Your task to perform on an android device: What's on the menu at Pizza Hut? Image 0: 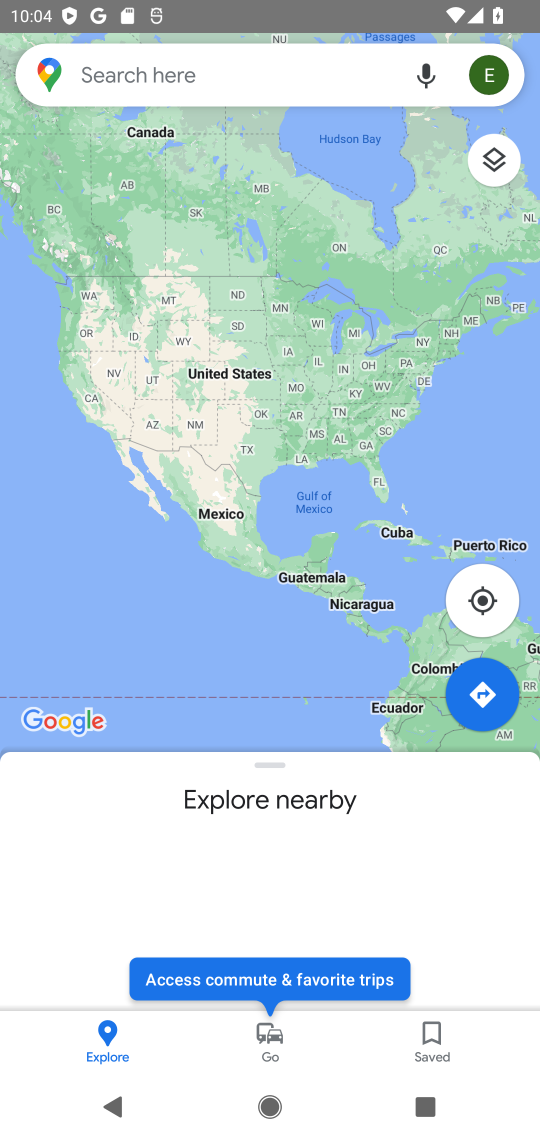
Step 0: press home button
Your task to perform on an android device: What's on the menu at Pizza Hut? Image 1: 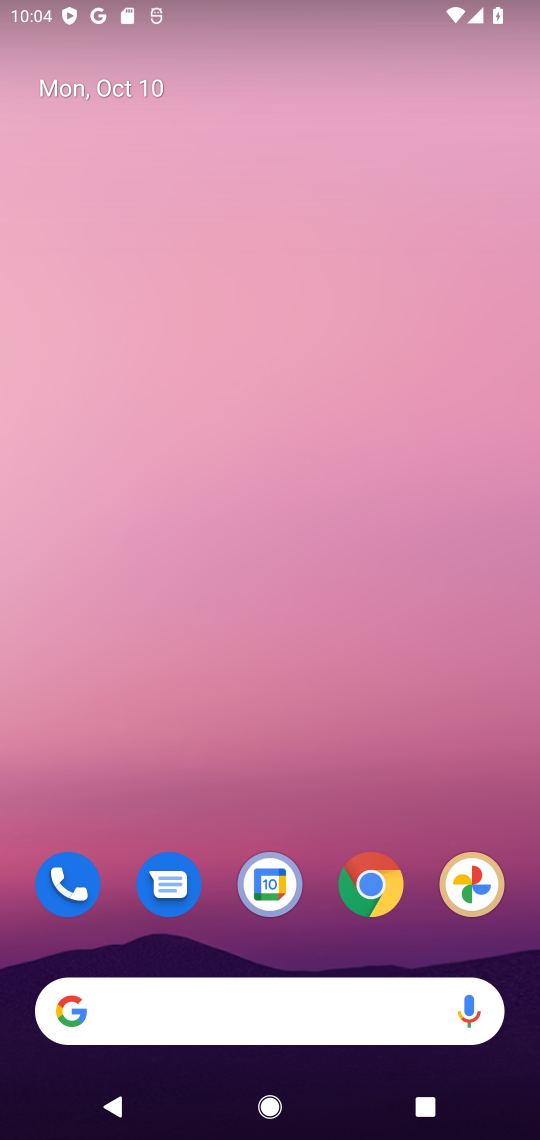
Step 1: drag from (327, 962) to (344, 133)
Your task to perform on an android device: What's on the menu at Pizza Hut? Image 2: 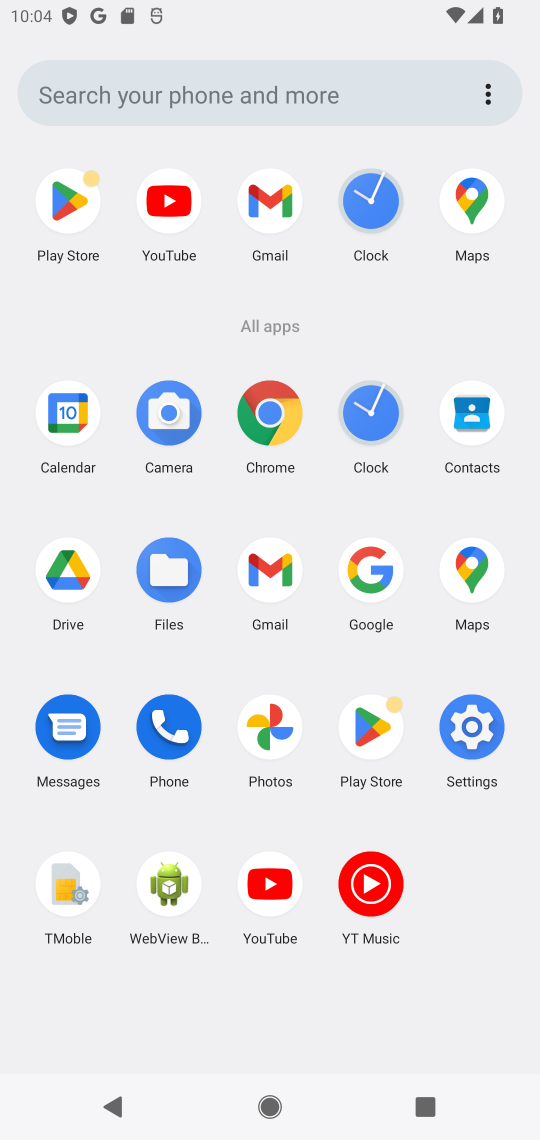
Step 2: click (377, 560)
Your task to perform on an android device: What's on the menu at Pizza Hut? Image 3: 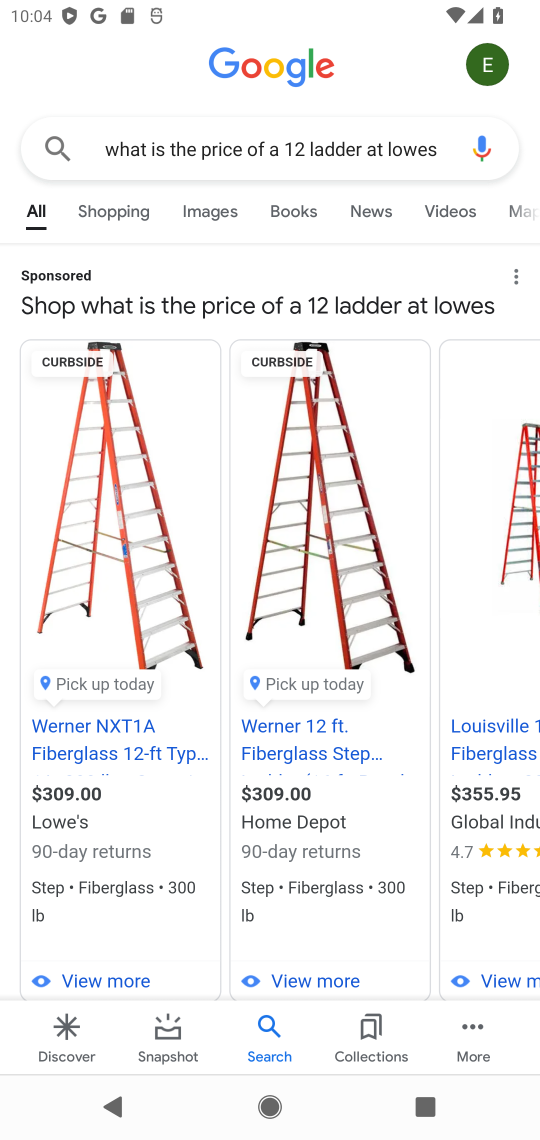
Step 3: click (344, 154)
Your task to perform on an android device: What's on the menu at Pizza Hut? Image 4: 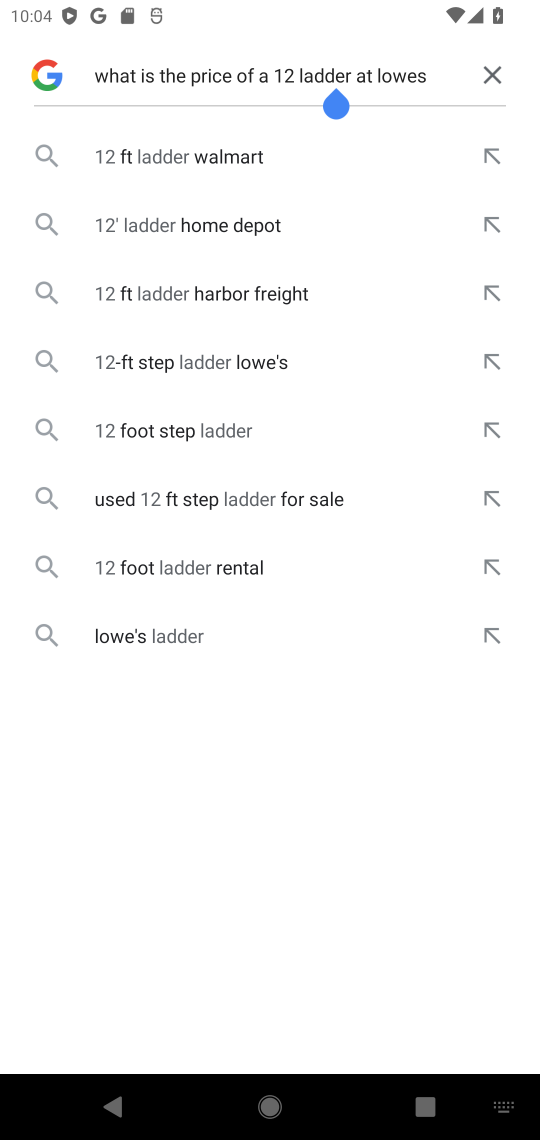
Step 4: click (484, 70)
Your task to perform on an android device: What's on the menu at Pizza Hut? Image 5: 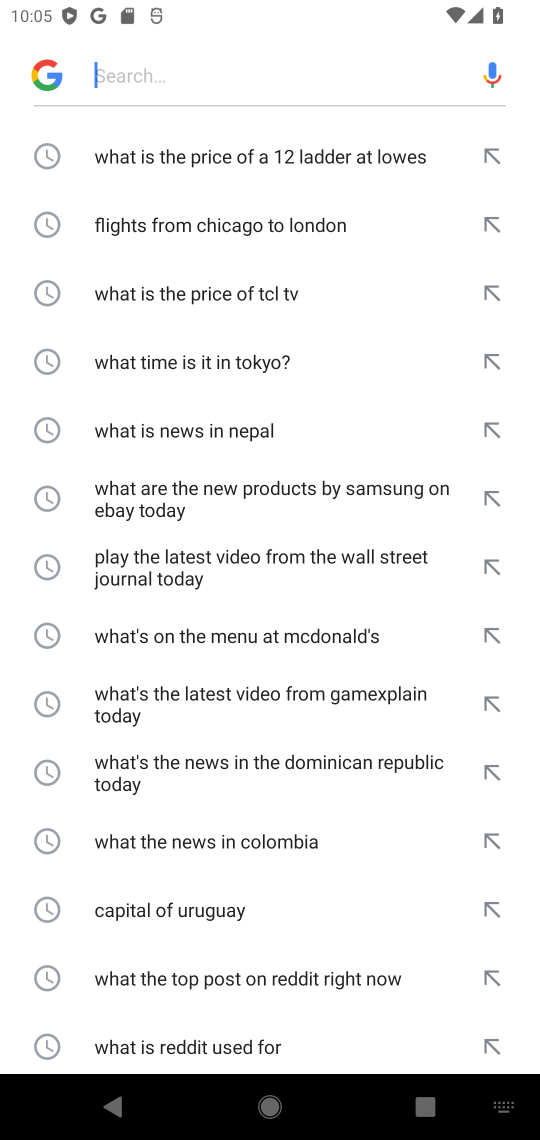
Step 5: type "Pizza Hut?"
Your task to perform on an android device: What's on the menu at Pizza Hut? Image 6: 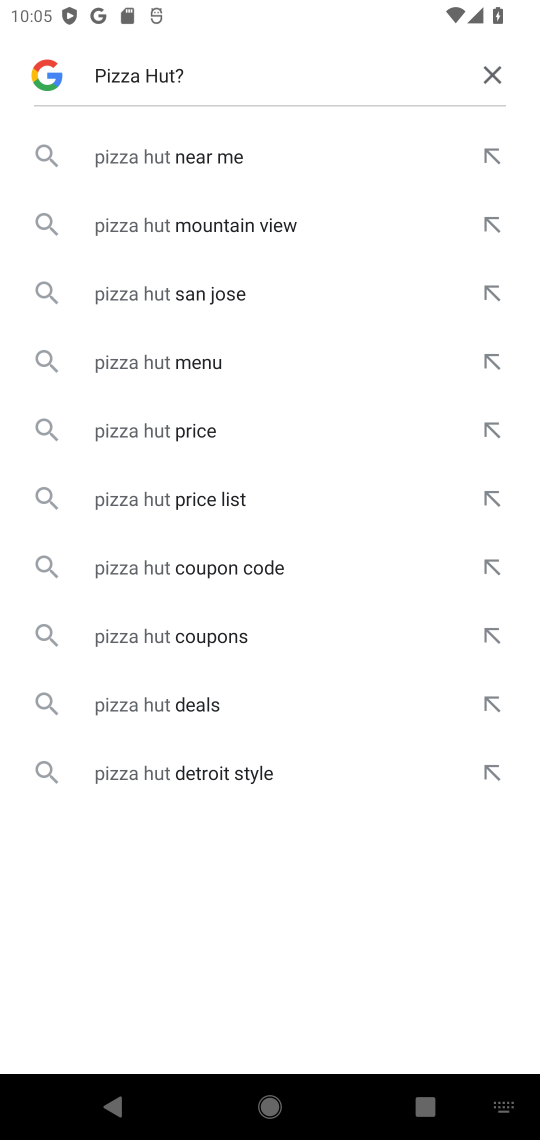
Step 6: click (185, 71)
Your task to perform on an android device: What's on the menu at Pizza Hut? Image 7: 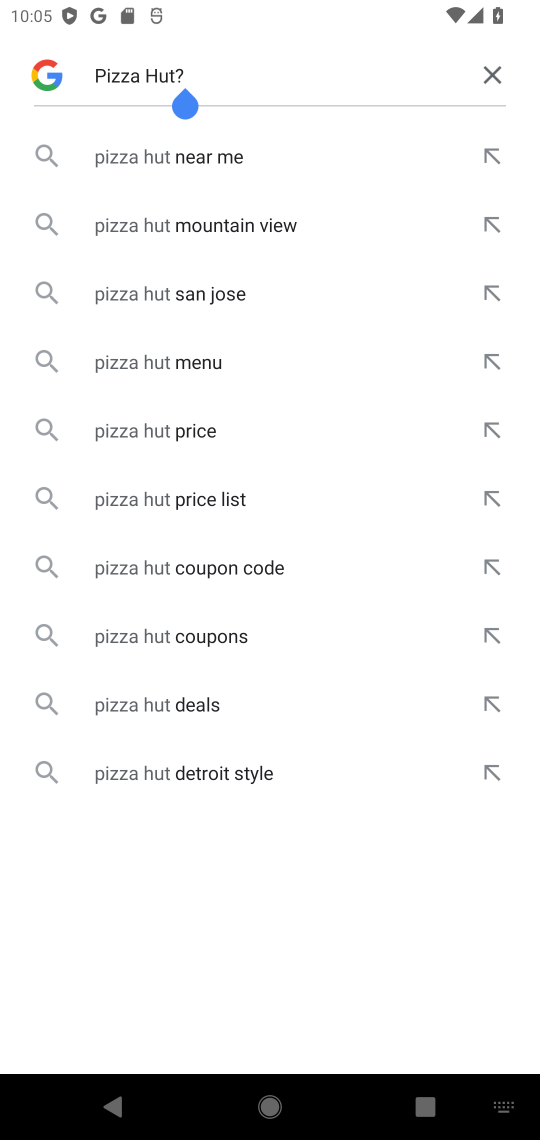
Step 7: click (474, 73)
Your task to perform on an android device: What's on the menu at Pizza Hut? Image 8: 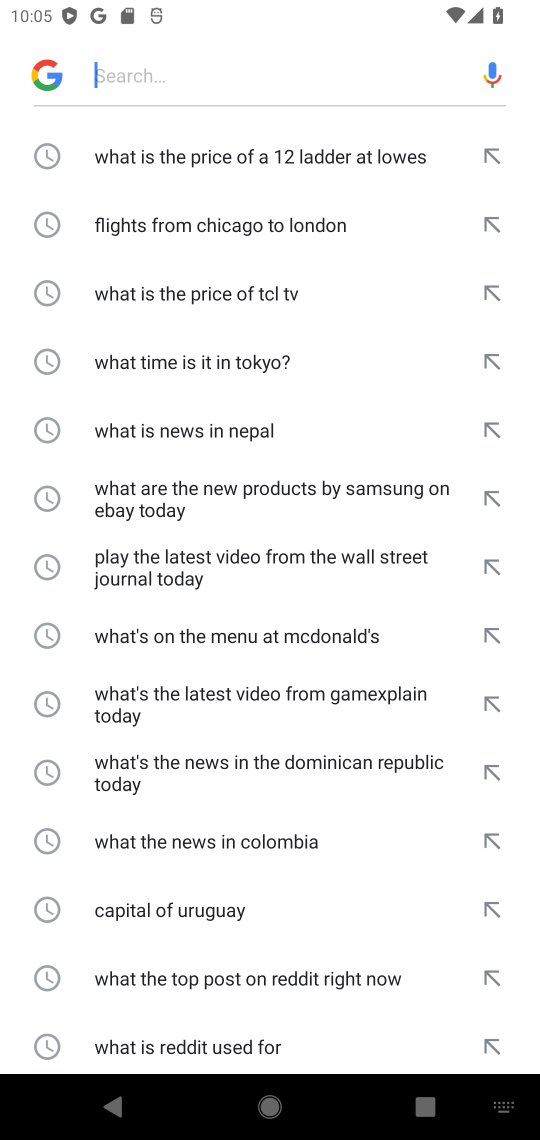
Step 8: type "menu at Pizza Hut?"
Your task to perform on an android device: What's on the menu at Pizza Hut? Image 9: 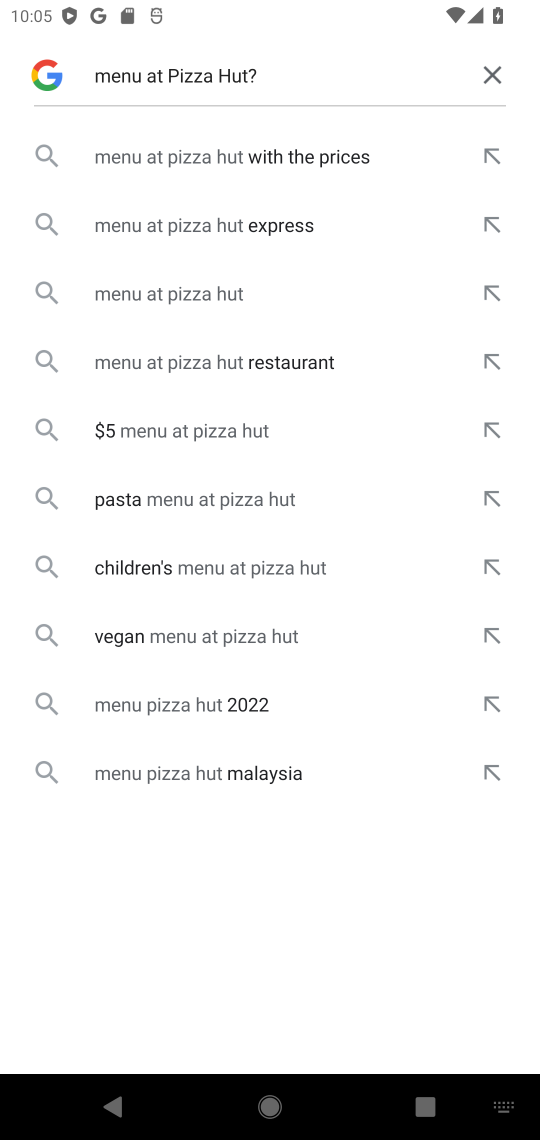
Step 9: click (244, 296)
Your task to perform on an android device: What's on the menu at Pizza Hut? Image 10: 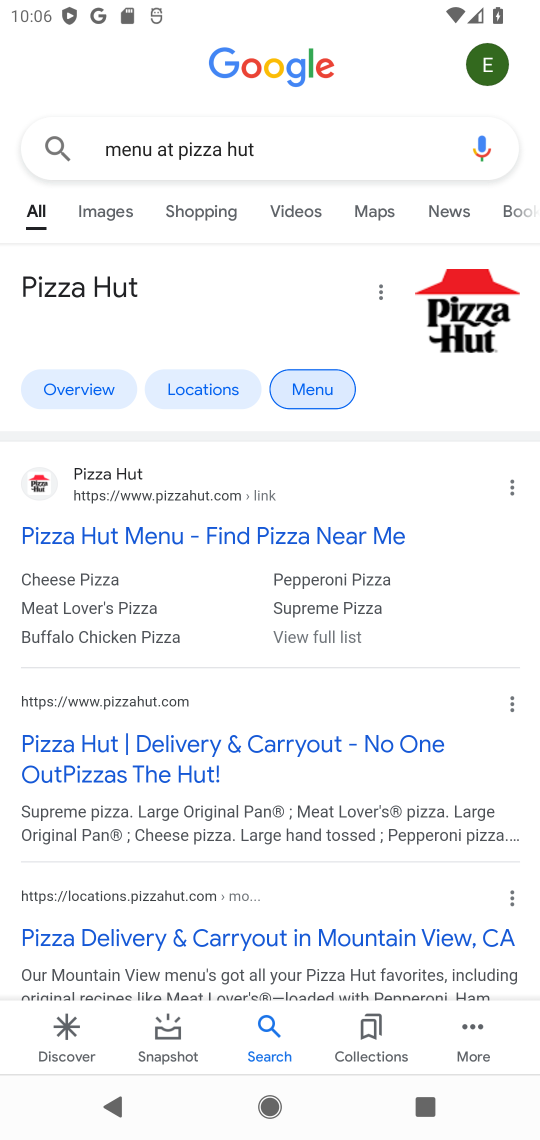
Step 10: click (308, 398)
Your task to perform on an android device: What's on the menu at Pizza Hut? Image 11: 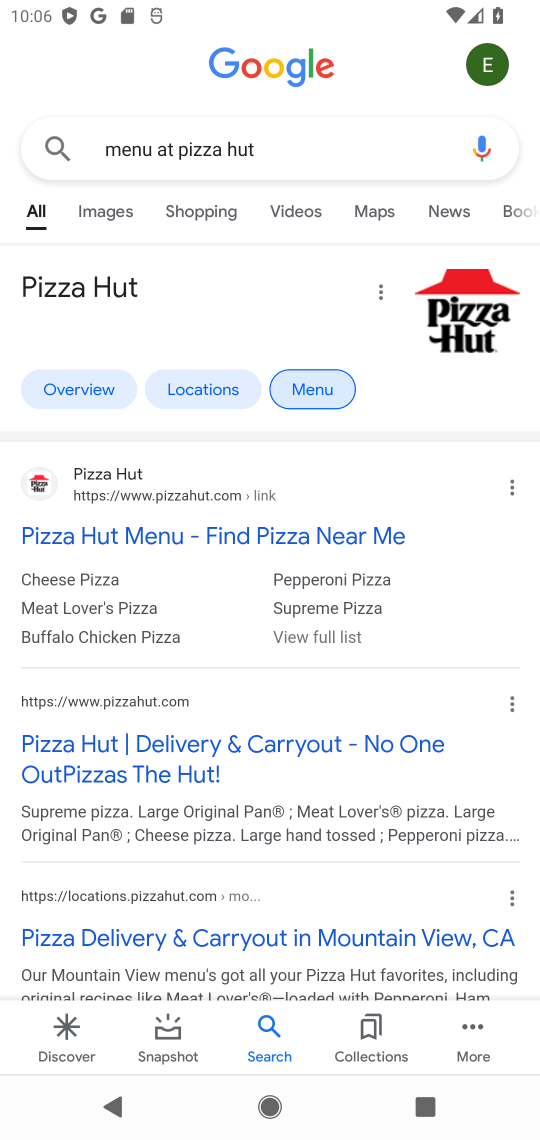
Step 11: task complete